Your task to perform on an android device: Show me recent news Image 0: 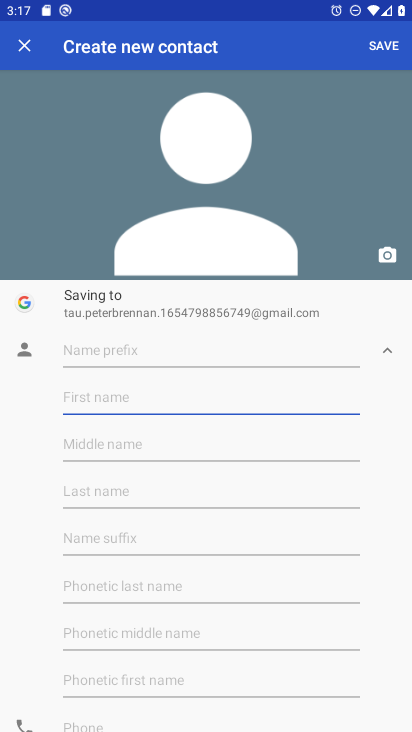
Step 0: press home button
Your task to perform on an android device: Show me recent news Image 1: 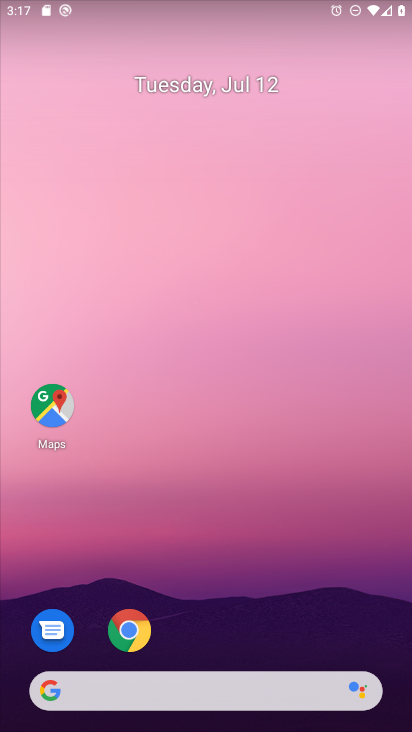
Step 1: drag from (201, 627) to (225, 128)
Your task to perform on an android device: Show me recent news Image 2: 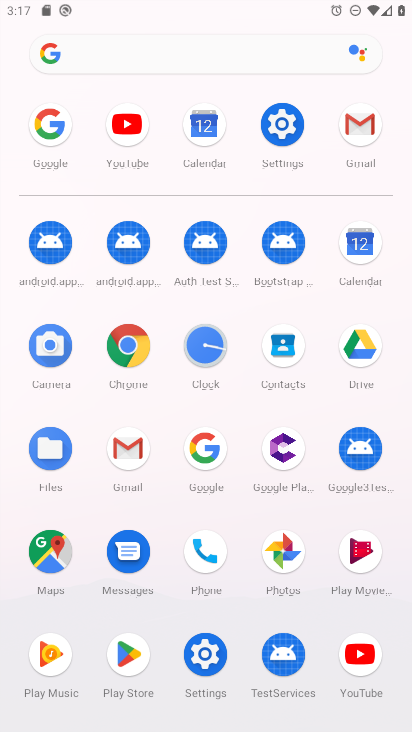
Step 2: click (195, 469)
Your task to perform on an android device: Show me recent news Image 3: 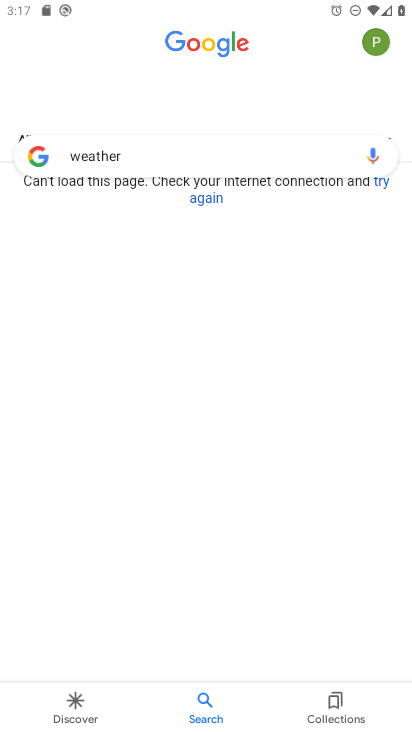
Step 3: click (133, 143)
Your task to perform on an android device: Show me recent news Image 4: 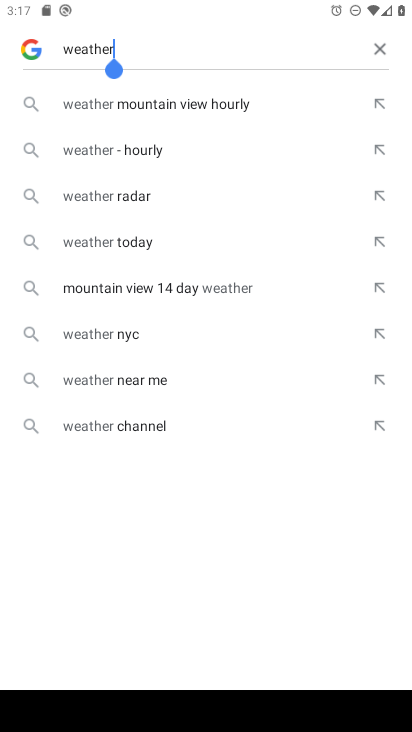
Step 4: click (380, 57)
Your task to perform on an android device: Show me recent news Image 5: 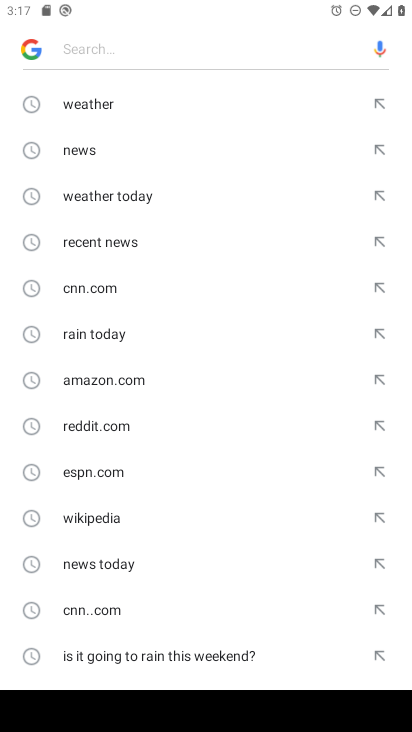
Step 5: click (69, 155)
Your task to perform on an android device: Show me recent news Image 6: 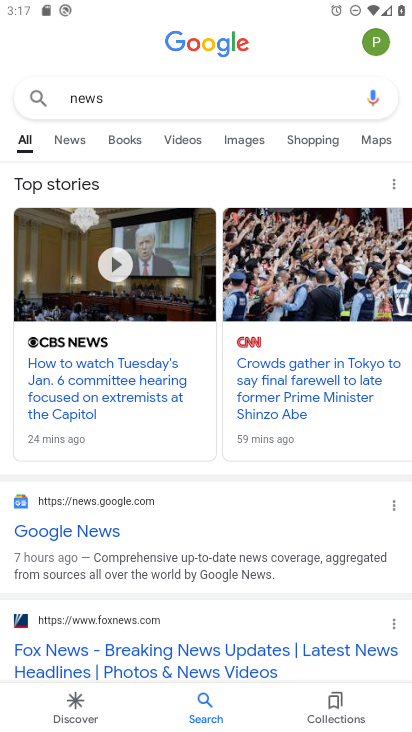
Step 6: task complete